Your task to perform on an android device: Open the calendar and show me this week's events? Image 0: 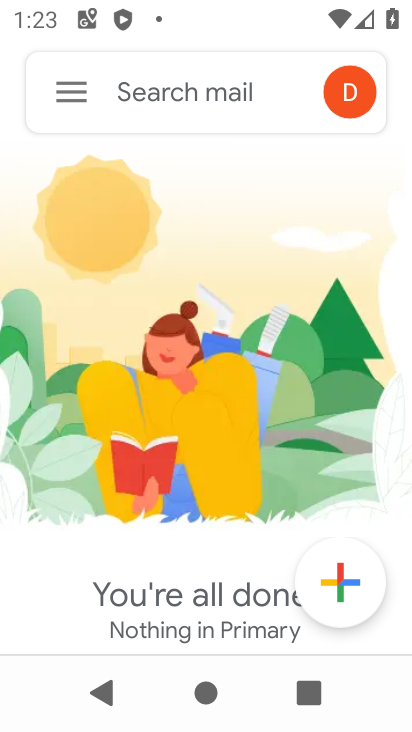
Step 0: press home button
Your task to perform on an android device: Open the calendar and show me this week's events? Image 1: 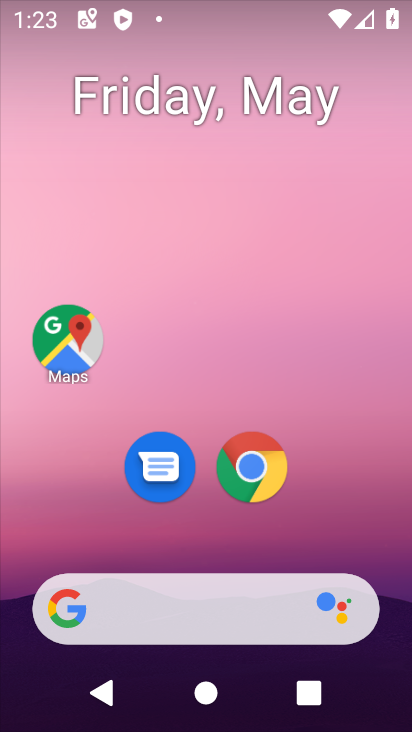
Step 1: drag from (313, 514) to (330, 92)
Your task to perform on an android device: Open the calendar and show me this week's events? Image 2: 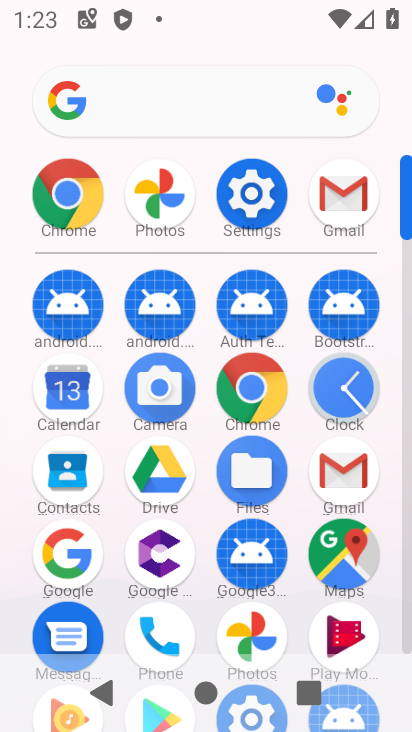
Step 2: click (70, 387)
Your task to perform on an android device: Open the calendar and show me this week's events? Image 3: 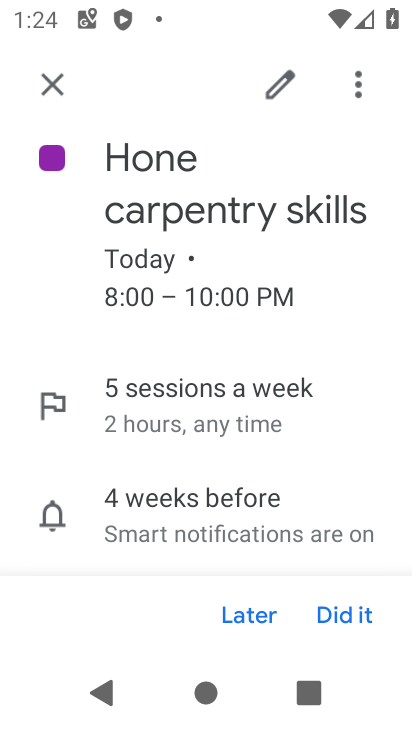
Step 3: press back button
Your task to perform on an android device: Open the calendar and show me this week's events? Image 4: 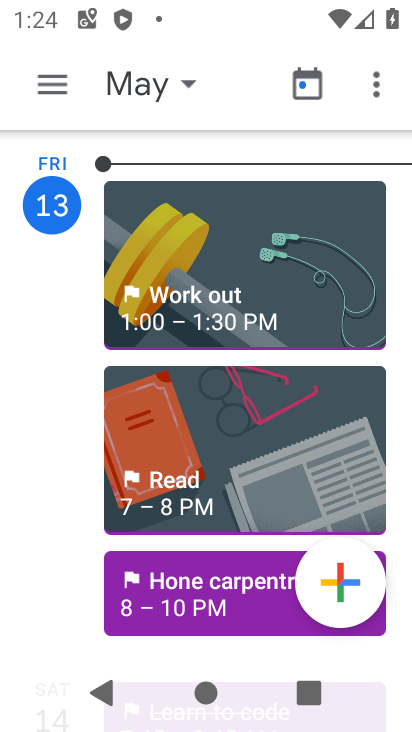
Step 4: click (185, 81)
Your task to perform on an android device: Open the calendar and show me this week's events? Image 5: 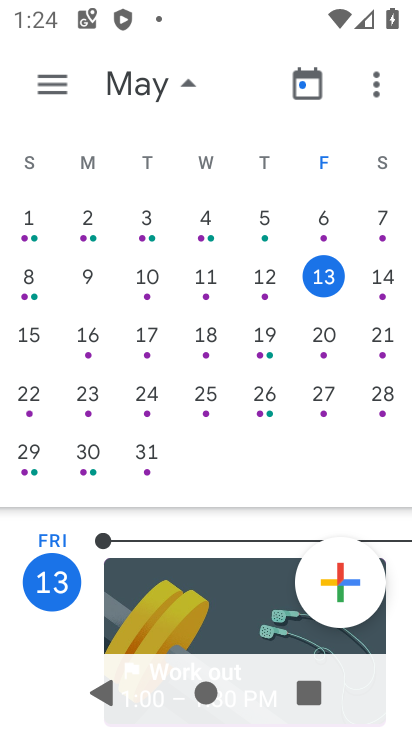
Step 5: click (57, 86)
Your task to perform on an android device: Open the calendar and show me this week's events? Image 6: 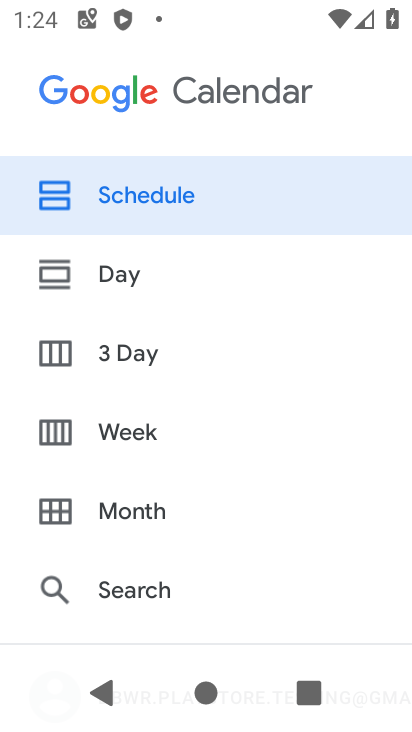
Step 6: click (135, 205)
Your task to perform on an android device: Open the calendar and show me this week's events? Image 7: 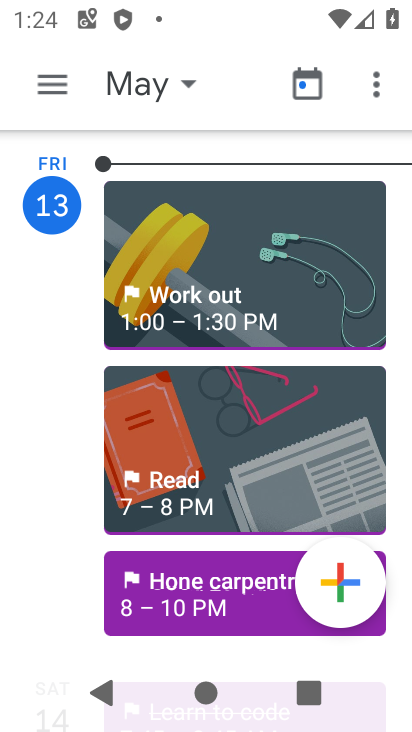
Step 7: task complete